Your task to perform on an android device: change the clock style Image 0: 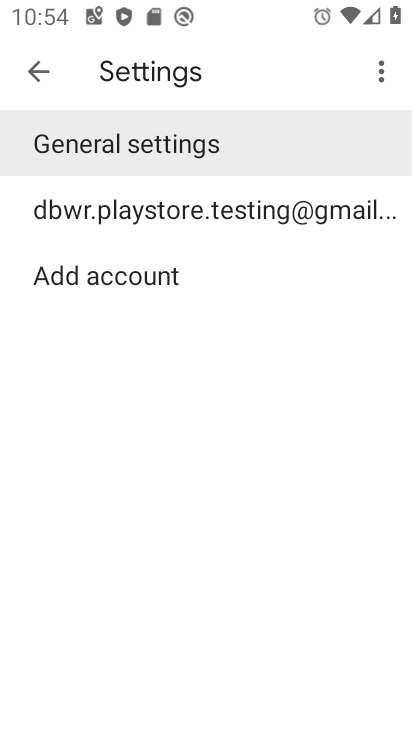
Step 0: press home button
Your task to perform on an android device: change the clock style Image 1: 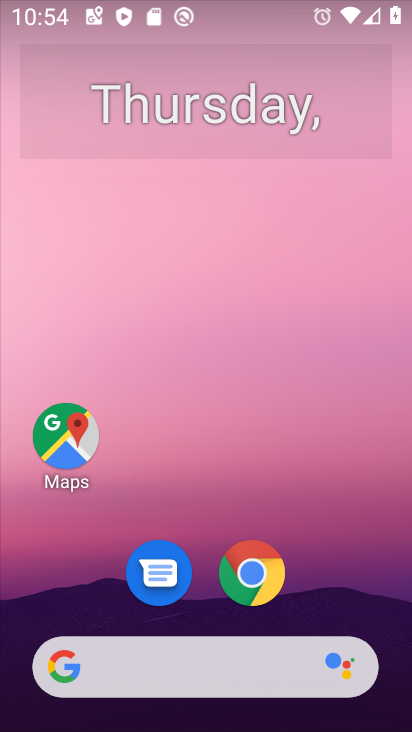
Step 1: drag from (335, 595) to (151, 4)
Your task to perform on an android device: change the clock style Image 2: 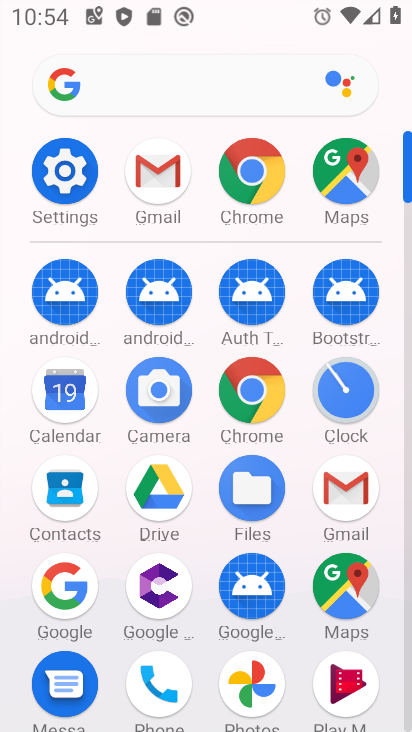
Step 2: click (324, 389)
Your task to perform on an android device: change the clock style Image 3: 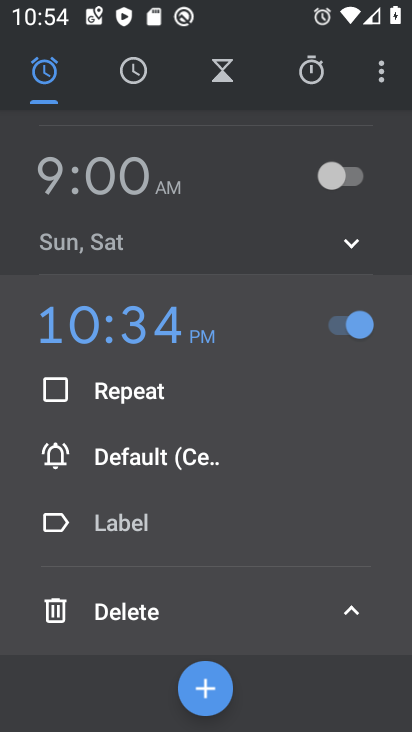
Step 3: click (386, 54)
Your task to perform on an android device: change the clock style Image 4: 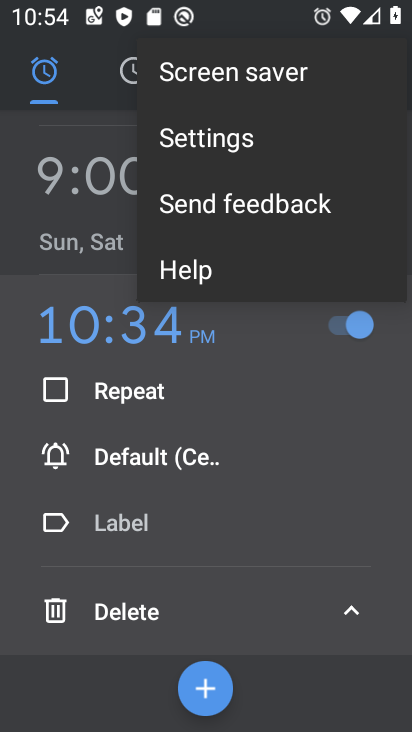
Step 4: click (203, 140)
Your task to perform on an android device: change the clock style Image 5: 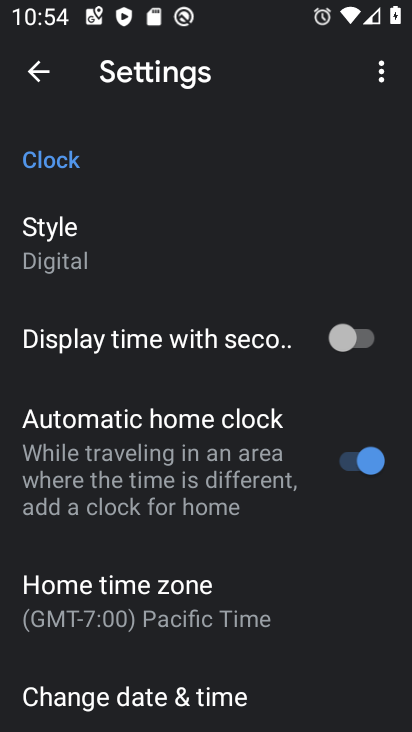
Step 5: click (79, 234)
Your task to perform on an android device: change the clock style Image 6: 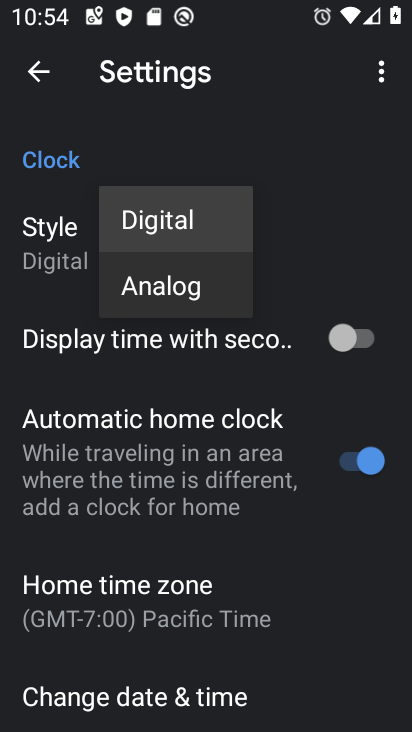
Step 6: click (182, 281)
Your task to perform on an android device: change the clock style Image 7: 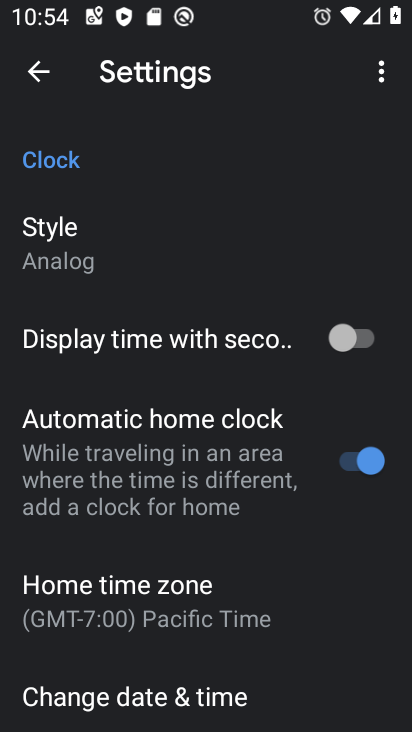
Step 7: task complete